Your task to perform on an android device: Find coffee shops on Maps Image 0: 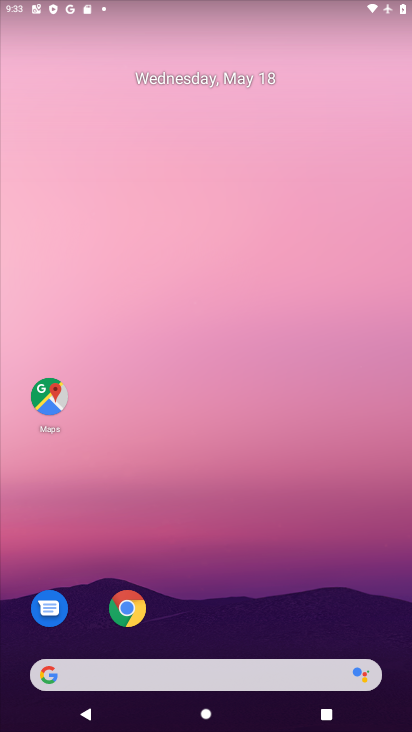
Step 0: drag from (309, 611) to (256, 76)
Your task to perform on an android device: Find coffee shops on Maps Image 1: 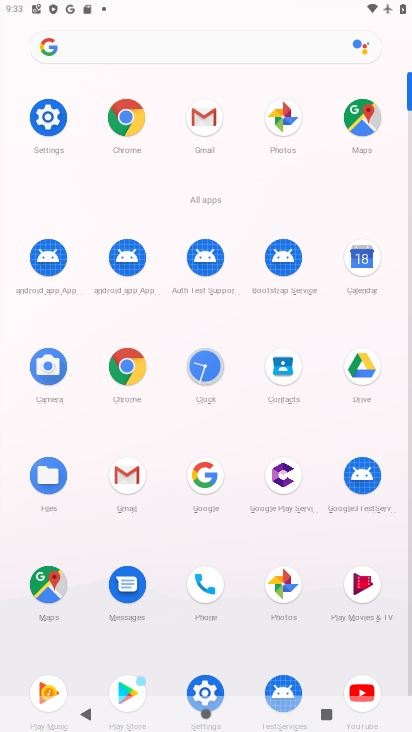
Step 1: click (366, 119)
Your task to perform on an android device: Find coffee shops on Maps Image 2: 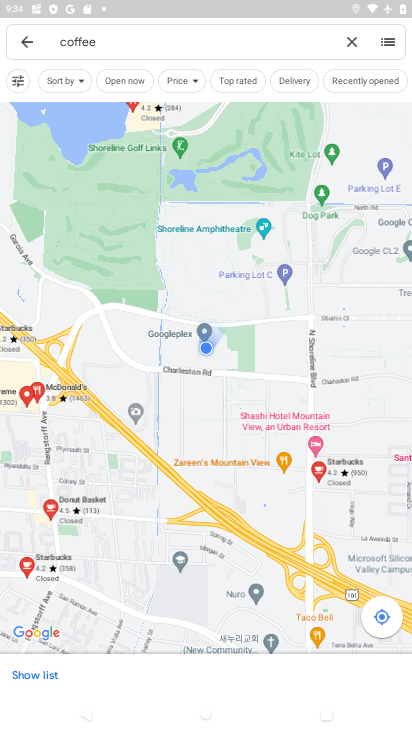
Step 2: click (276, 38)
Your task to perform on an android device: Find coffee shops on Maps Image 3: 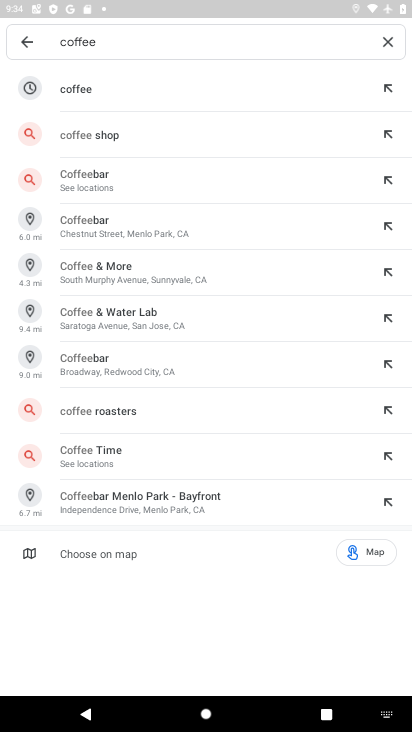
Step 3: click (186, 102)
Your task to perform on an android device: Find coffee shops on Maps Image 4: 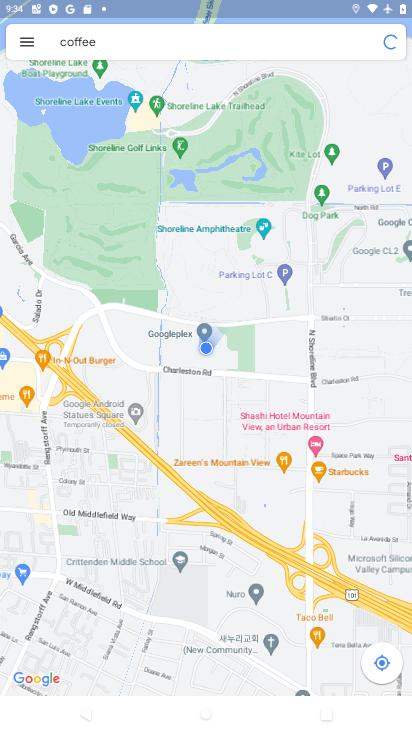
Step 4: task complete